Your task to perform on an android device: What is the news today? Image 0: 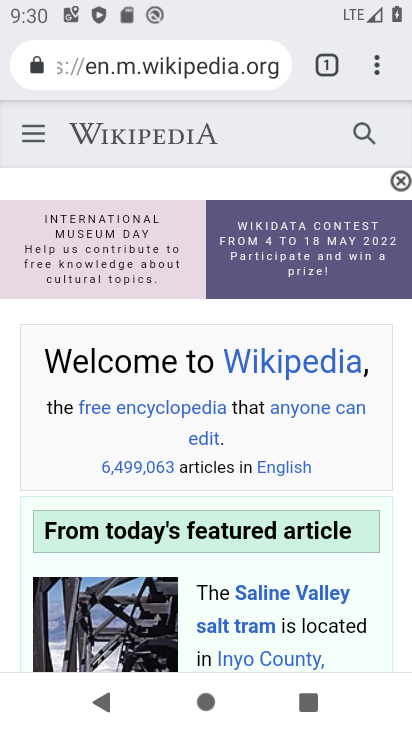
Step 0: press home button
Your task to perform on an android device: What is the news today? Image 1: 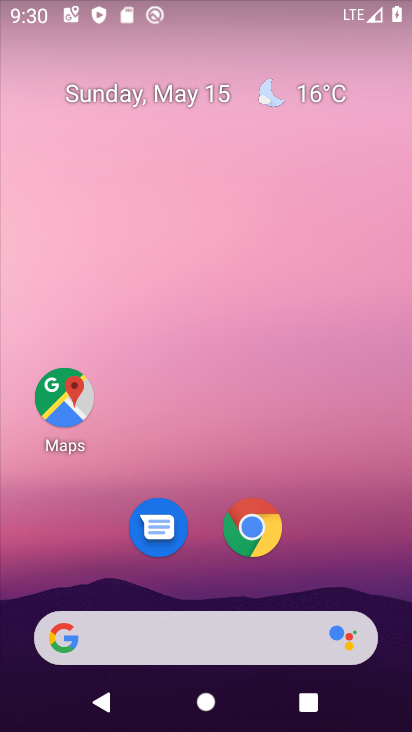
Step 1: click (121, 640)
Your task to perform on an android device: What is the news today? Image 2: 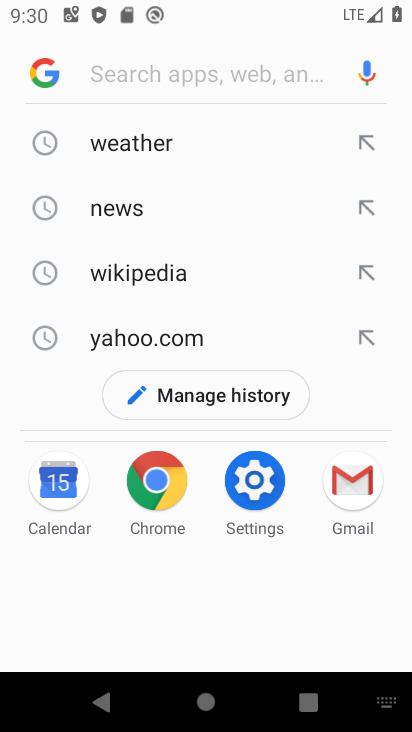
Step 2: click (126, 76)
Your task to perform on an android device: What is the news today? Image 3: 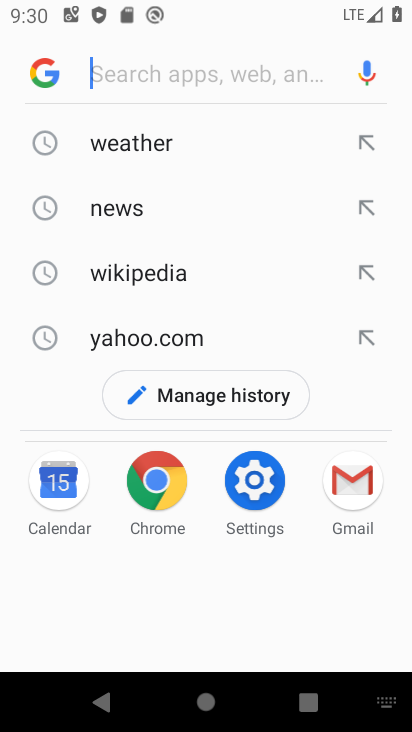
Step 3: type "news today"
Your task to perform on an android device: What is the news today? Image 4: 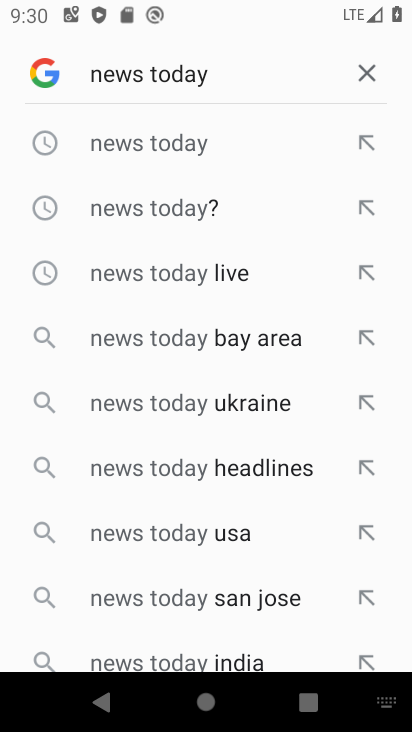
Step 4: click (202, 146)
Your task to perform on an android device: What is the news today? Image 5: 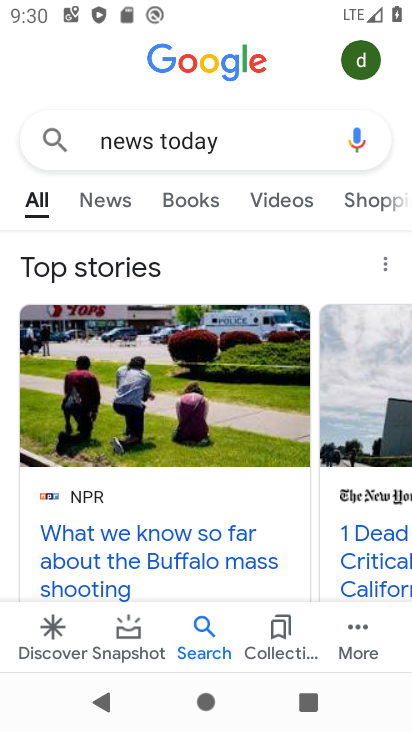
Step 5: click (97, 210)
Your task to perform on an android device: What is the news today? Image 6: 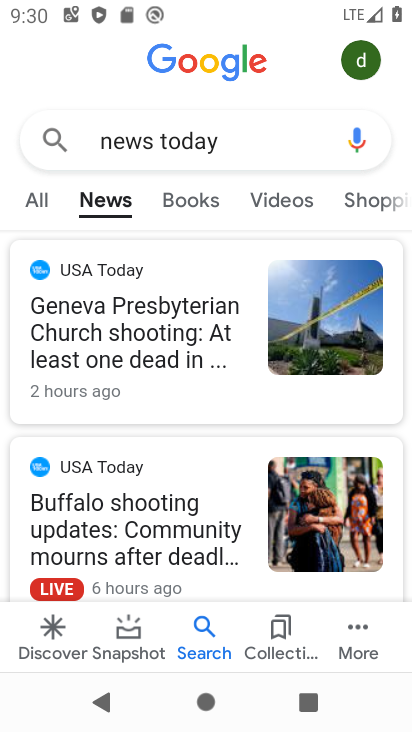
Step 6: click (142, 354)
Your task to perform on an android device: What is the news today? Image 7: 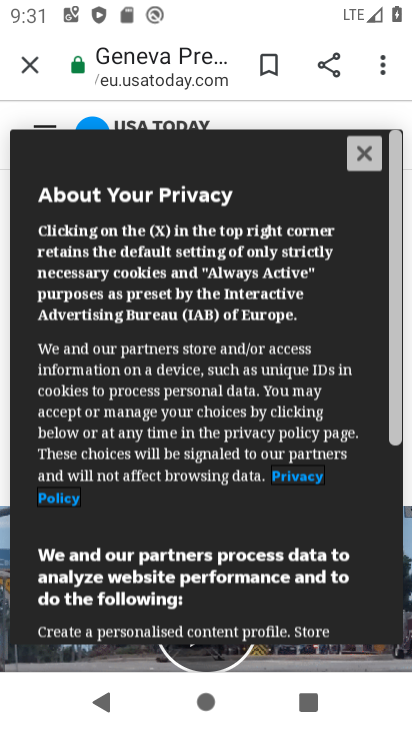
Step 7: task complete